Your task to perform on an android device: Search for vegetarian restaurants on Maps Image 0: 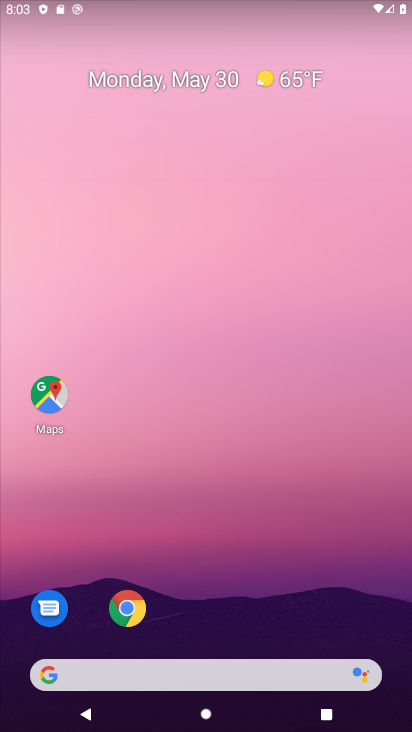
Step 0: click (43, 411)
Your task to perform on an android device: Search for vegetarian restaurants on Maps Image 1: 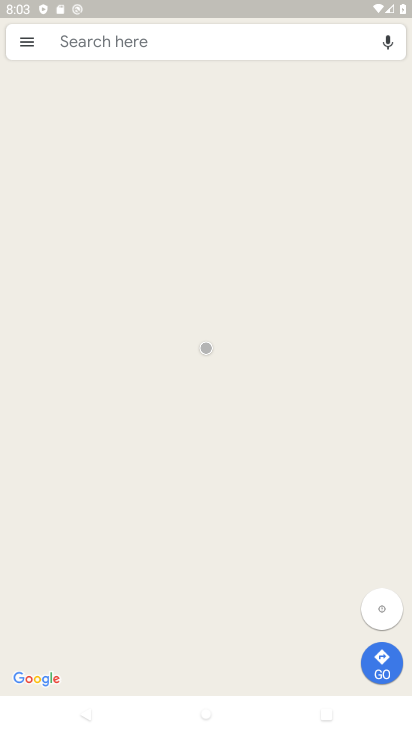
Step 1: click (210, 30)
Your task to perform on an android device: Search for vegetarian restaurants on Maps Image 2: 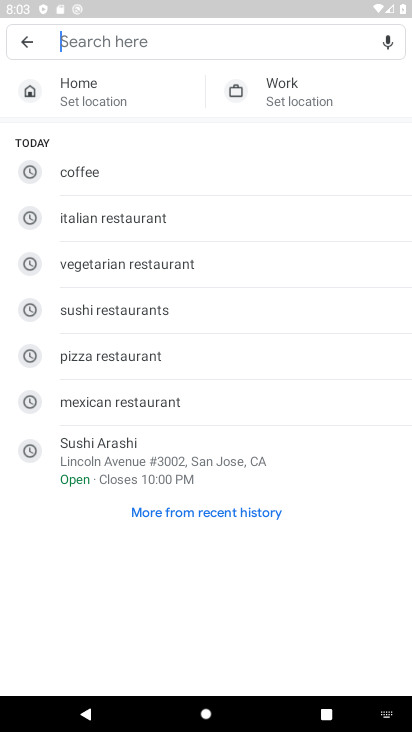
Step 2: type "vegetarian restaurants"
Your task to perform on an android device: Search for vegetarian restaurants on Maps Image 3: 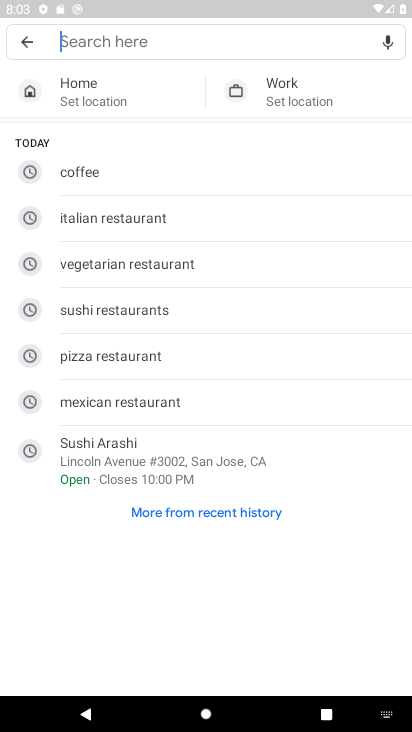
Step 3: click (215, 262)
Your task to perform on an android device: Search for vegetarian restaurants on Maps Image 4: 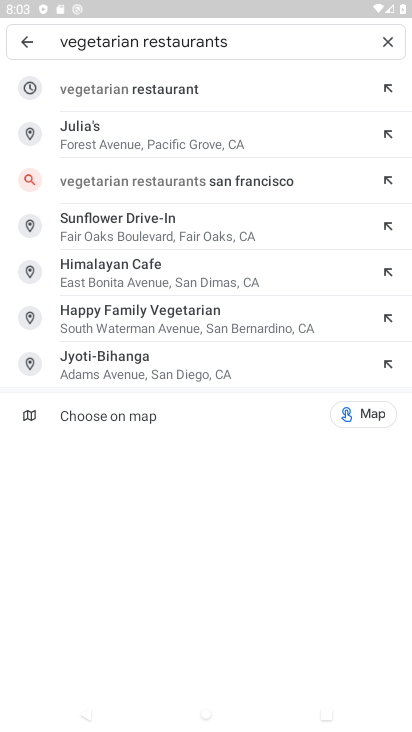
Step 4: click (165, 81)
Your task to perform on an android device: Search for vegetarian restaurants on Maps Image 5: 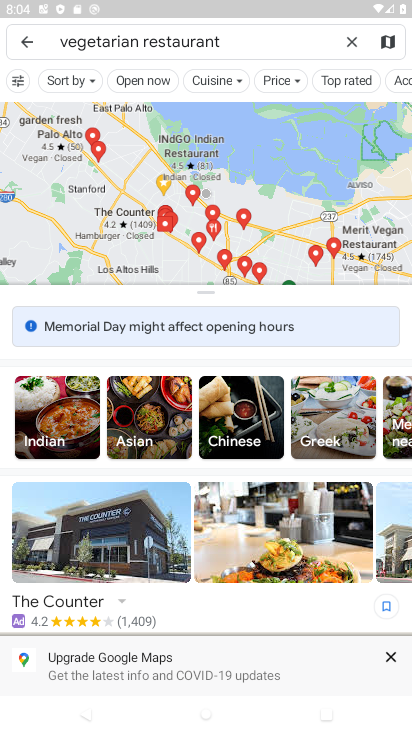
Step 5: task complete